Your task to perform on an android device: Open Chrome and go to settings Image 0: 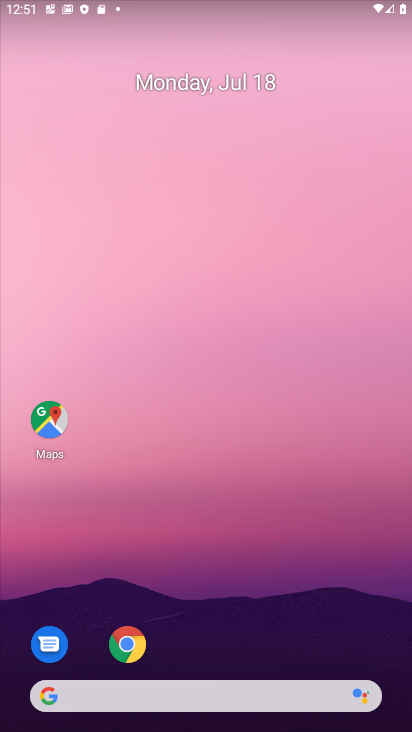
Step 0: click (140, 645)
Your task to perform on an android device: Open Chrome and go to settings Image 1: 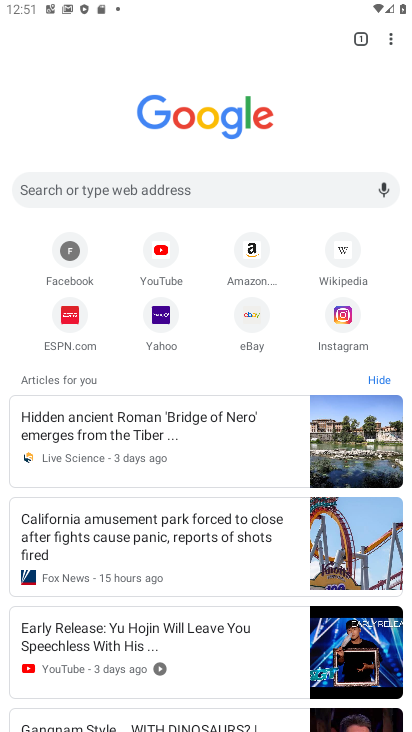
Step 1: click (393, 37)
Your task to perform on an android device: Open Chrome and go to settings Image 2: 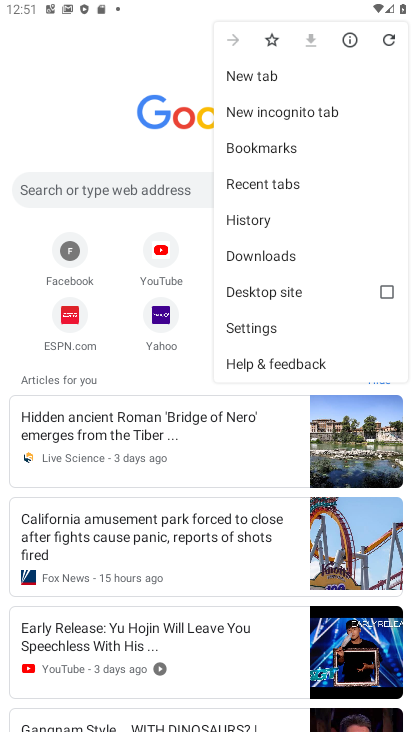
Step 2: click (273, 326)
Your task to perform on an android device: Open Chrome and go to settings Image 3: 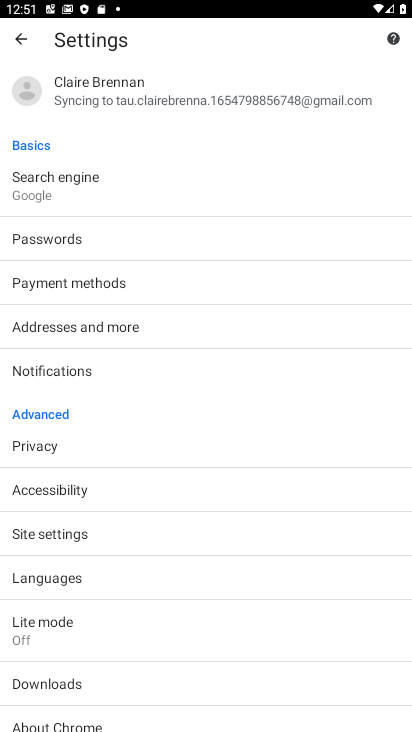
Step 3: task complete